Your task to perform on an android device: Open Yahoo.com Image 0: 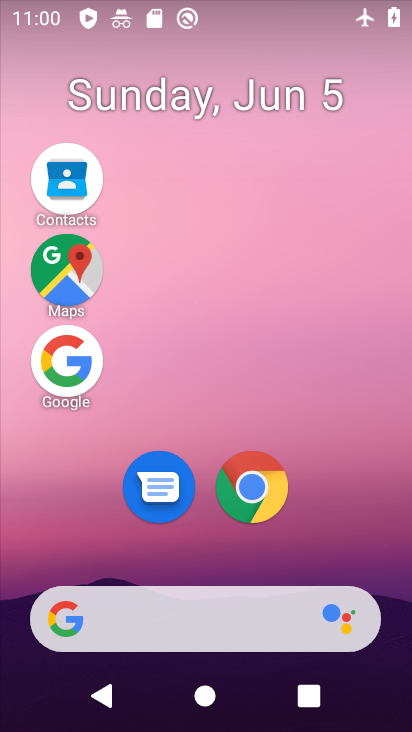
Step 0: click (242, 504)
Your task to perform on an android device: Open Yahoo.com Image 1: 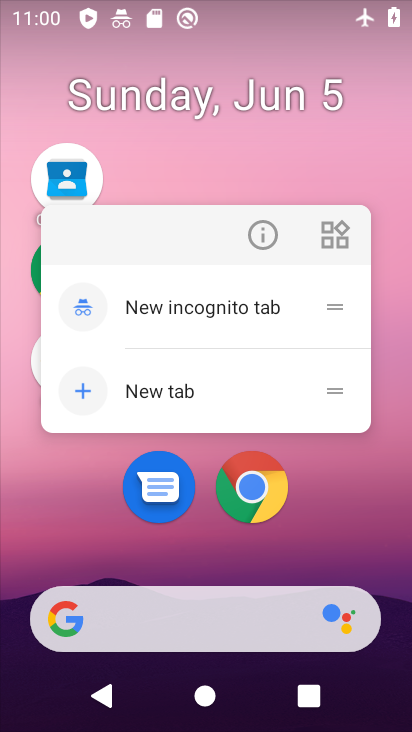
Step 1: click (267, 484)
Your task to perform on an android device: Open Yahoo.com Image 2: 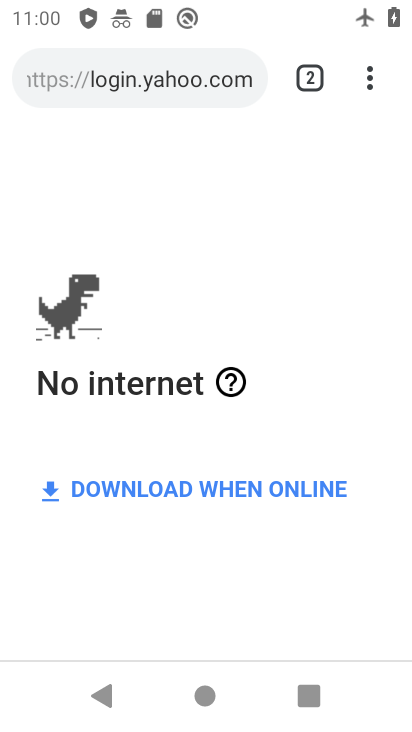
Step 2: task complete